Your task to perform on an android device: turn on showing notifications on the lock screen Image 0: 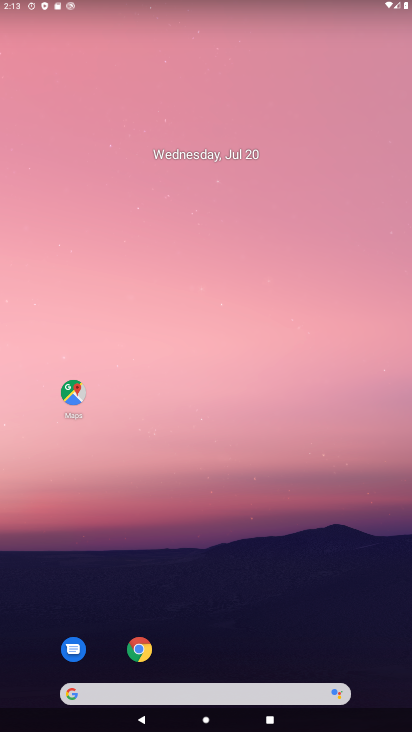
Step 0: drag from (266, 592) to (324, 162)
Your task to perform on an android device: turn on showing notifications on the lock screen Image 1: 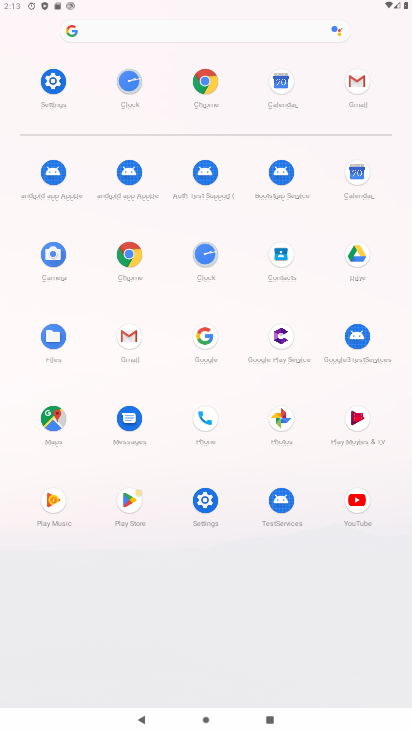
Step 1: task complete